Your task to perform on an android device: empty trash in the gmail app Image 0: 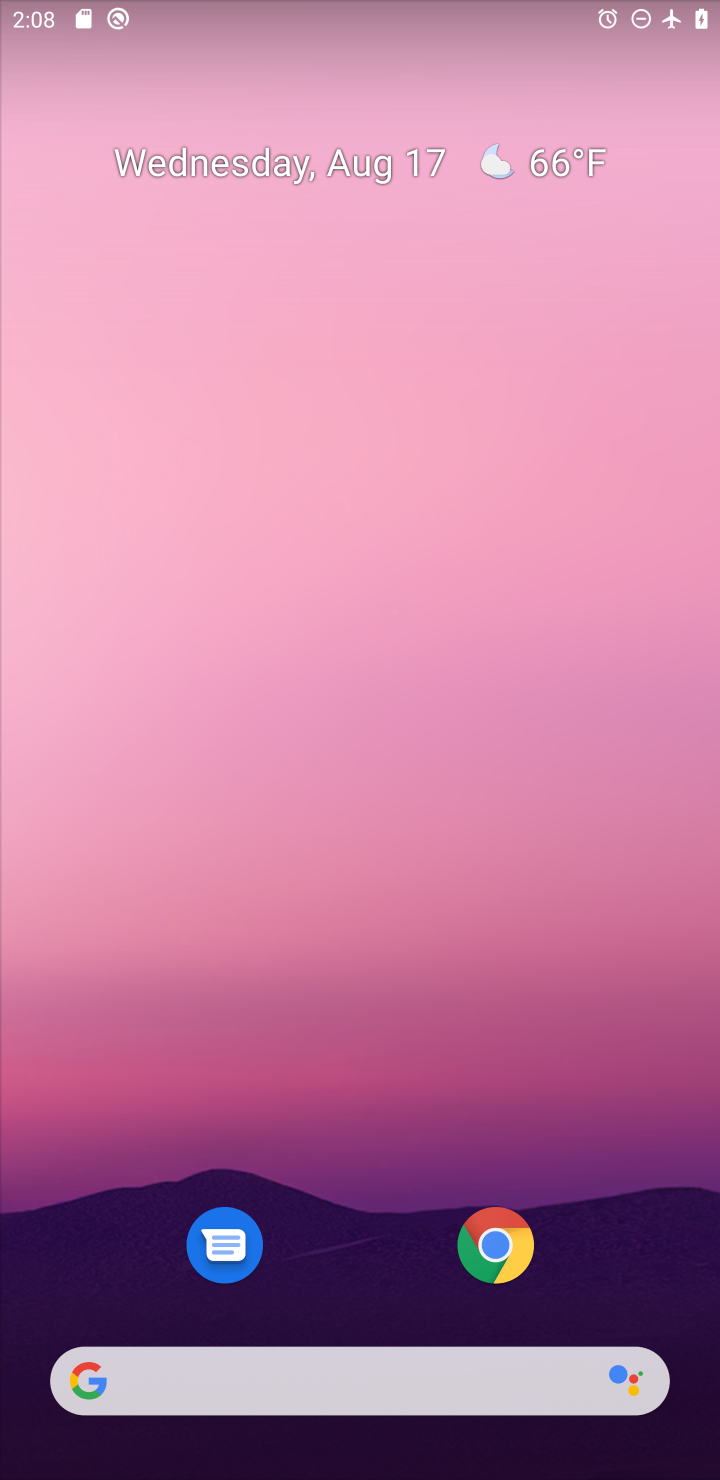
Step 0: drag from (368, 1315) to (317, 99)
Your task to perform on an android device: empty trash in the gmail app Image 1: 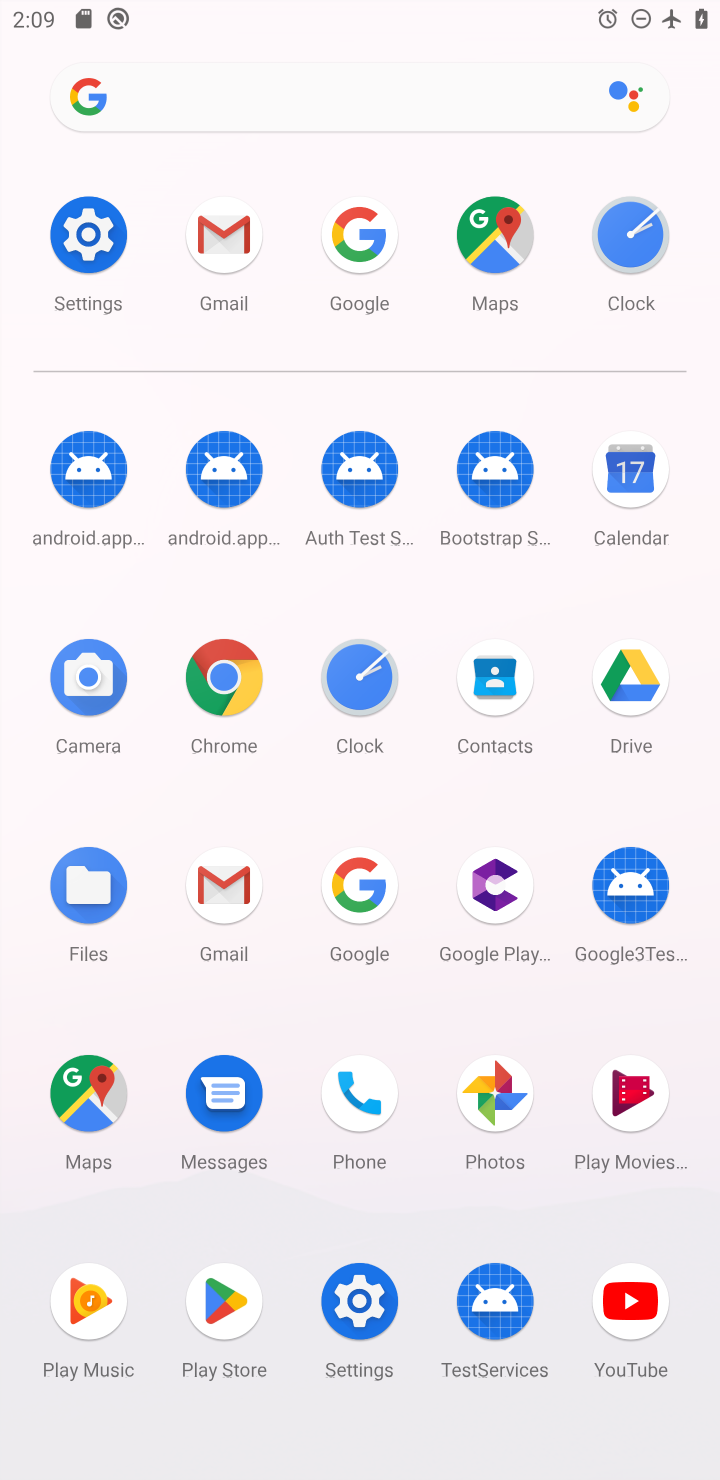
Step 1: click (211, 895)
Your task to perform on an android device: empty trash in the gmail app Image 2: 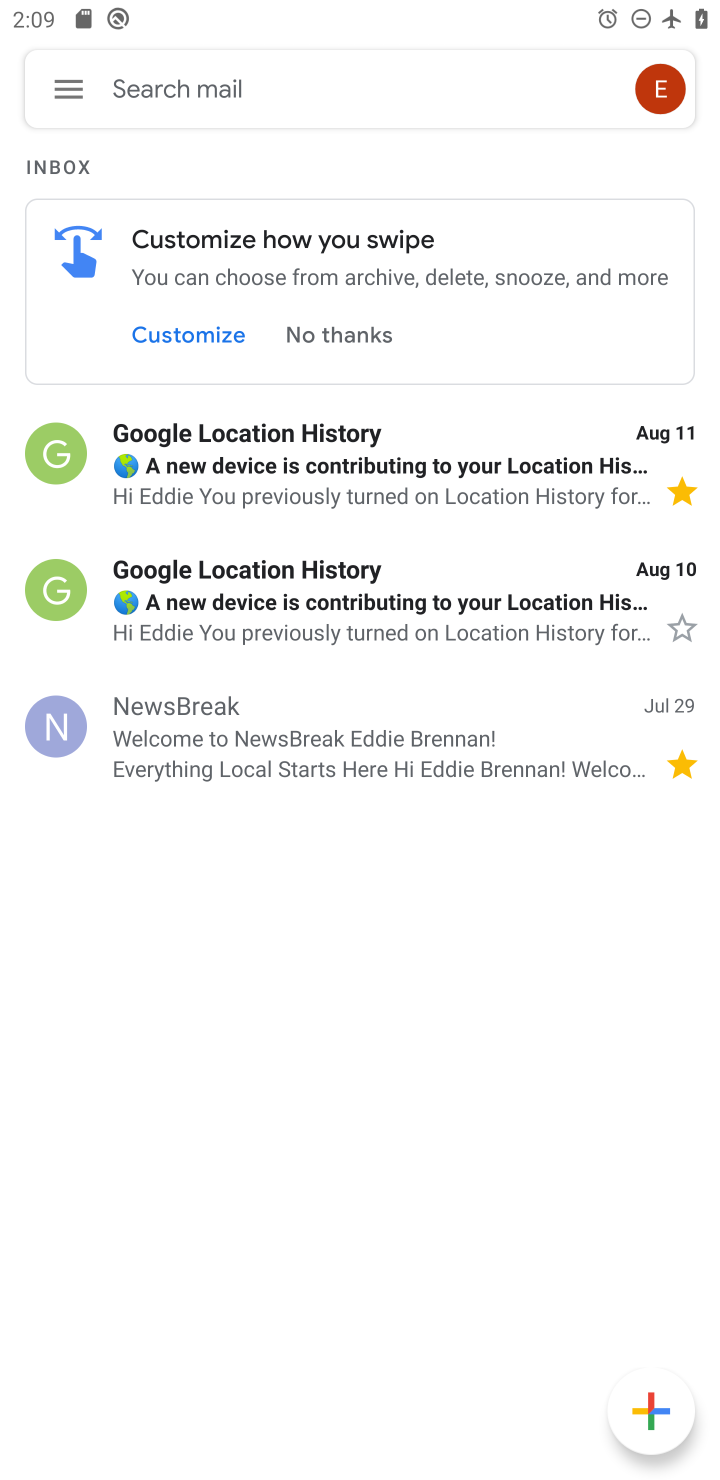
Step 2: click (64, 99)
Your task to perform on an android device: empty trash in the gmail app Image 3: 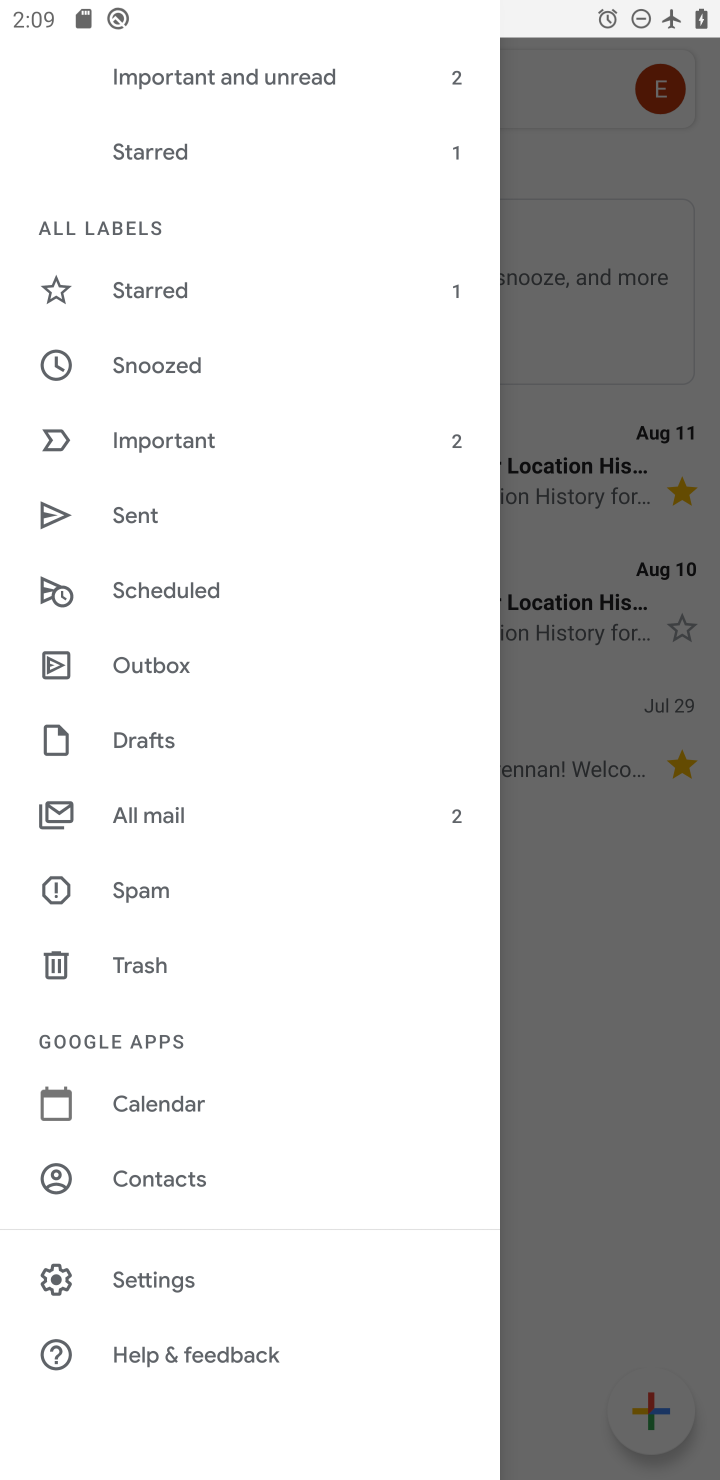
Step 3: click (152, 959)
Your task to perform on an android device: empty trash in the gmail app Image 4: 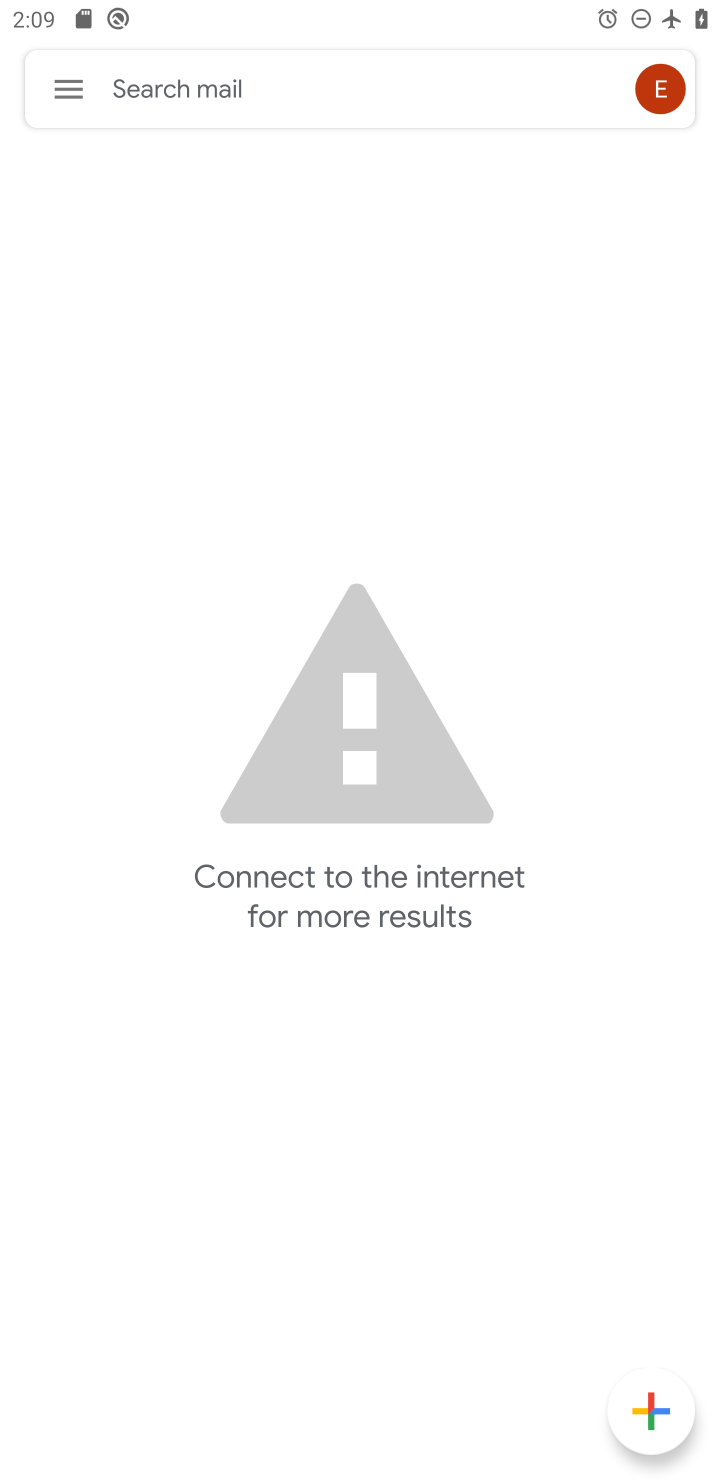
Step 4: click (60, 74)
Your task to perform on an android device: empty trash in the gmail app Image 5: 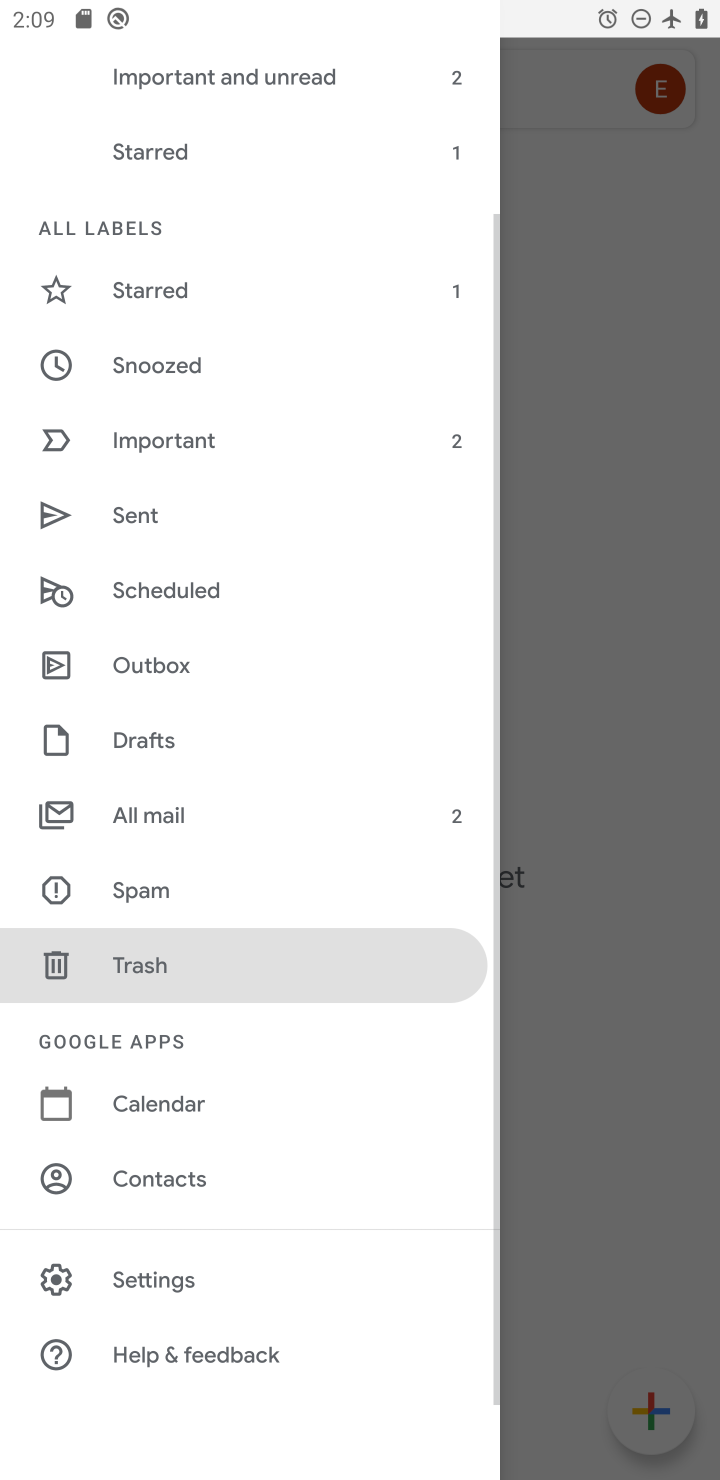
Step 5: click (123, 965)
Your task to perform on an android device: empty trash in the gmail app Image 6: 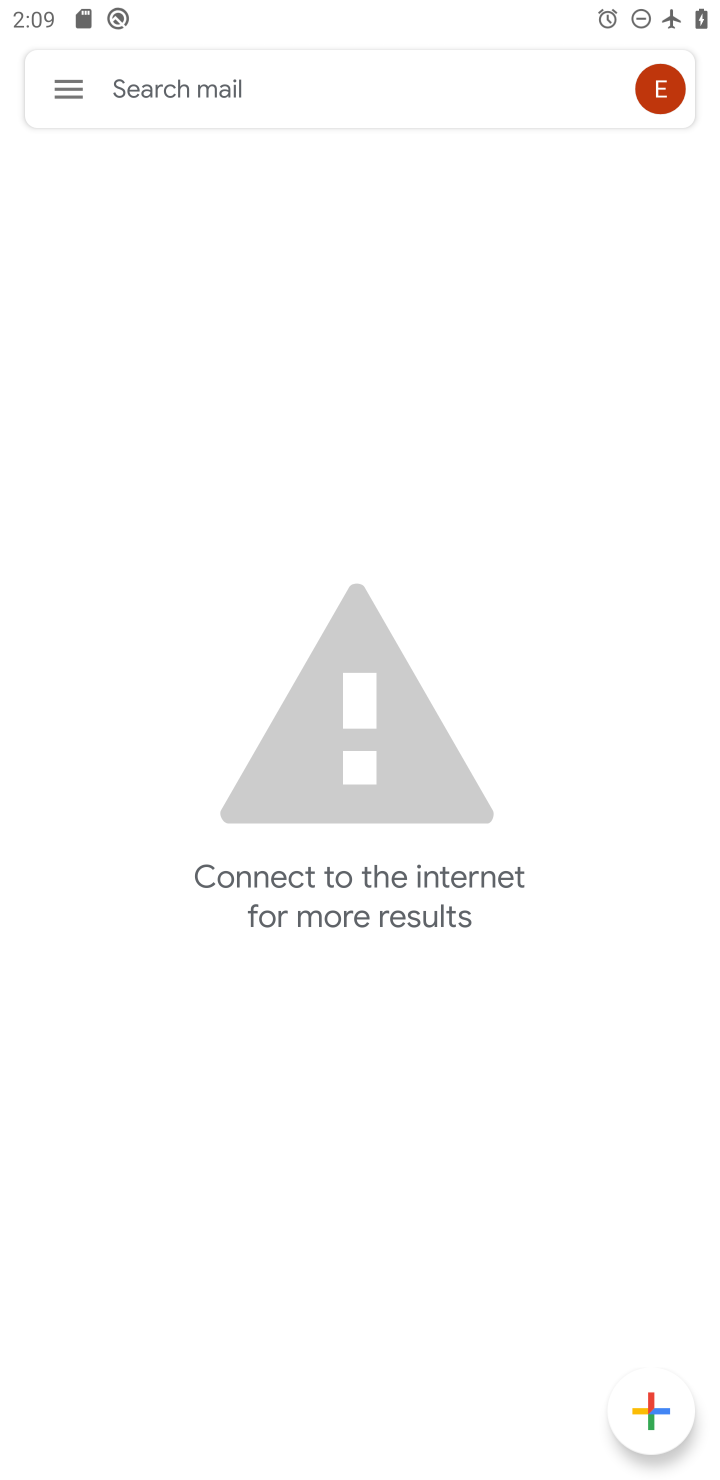
Step 6: task complete